Your task to perform on an android device: Open wifi settings Image 0: 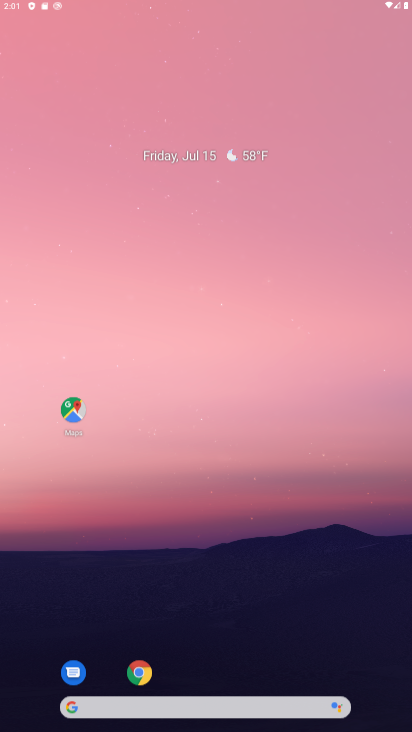
Step 0: press home button
Your task to perform on an android device: Open wifi settings Image 1: 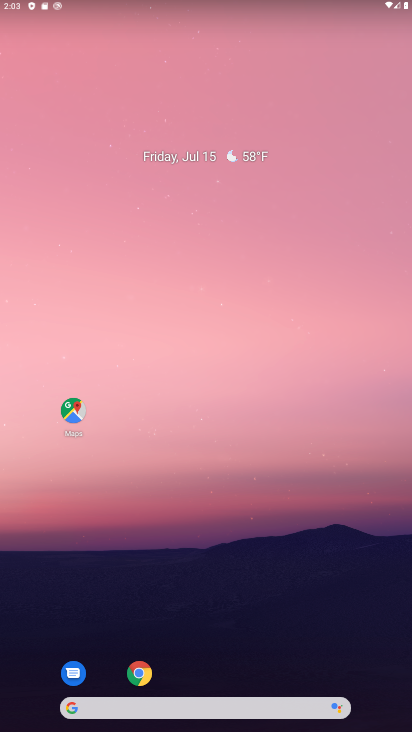
Step 1: drag from (380, 706) to (323, 84)
Your task to perform on an android device: Open wifi settings Image 2: 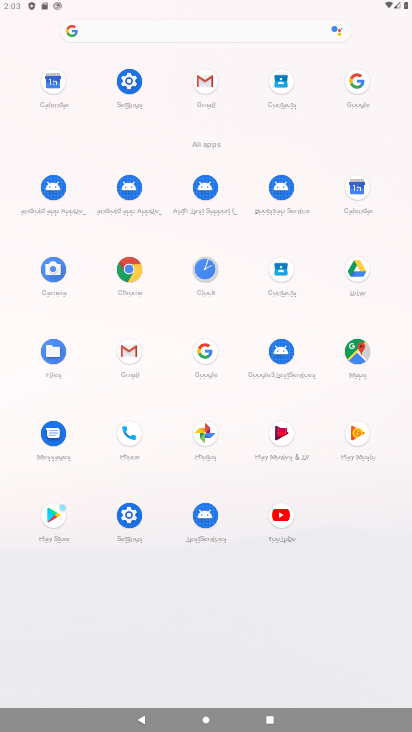
Step 2: click (128, 85)
Your task to perform on an android device: Open wifi settings Image 3: 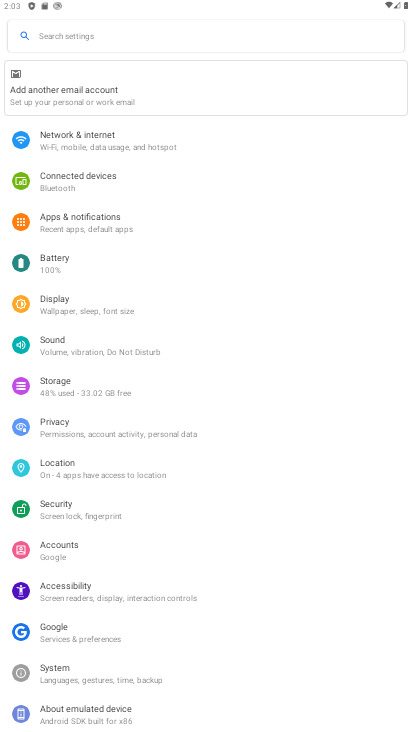
Step 3: click (140, 153)
Your task to perform on an android device: Open wifi settings Image 4: 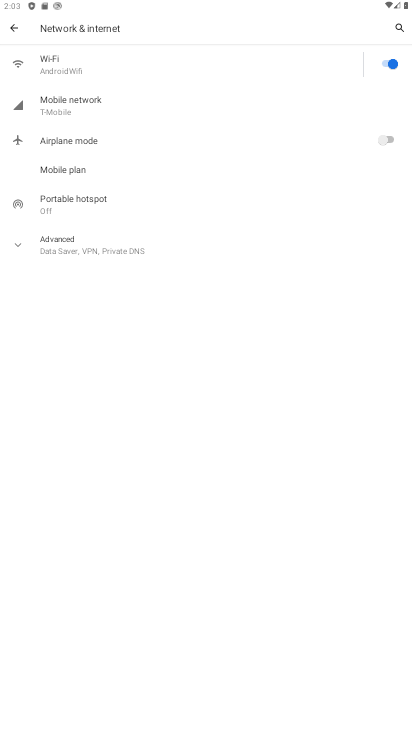
Step 4: click (241, 69)
Your task to perform on an android device: Open wifi settings Image 5: 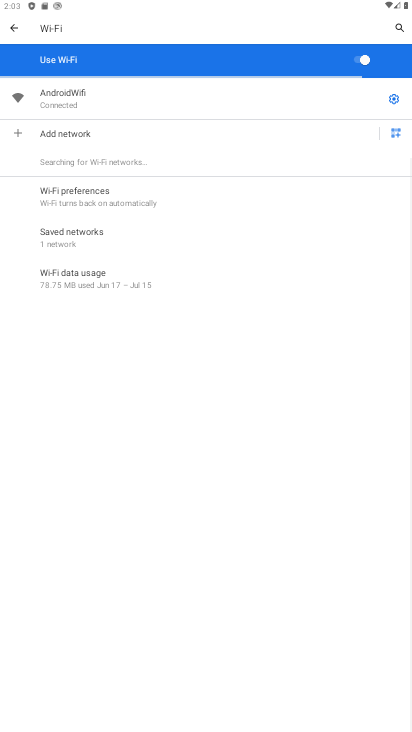
Step 5: click (390, 98)
Your task to perform on an android device: Open wifi settings Image 6: 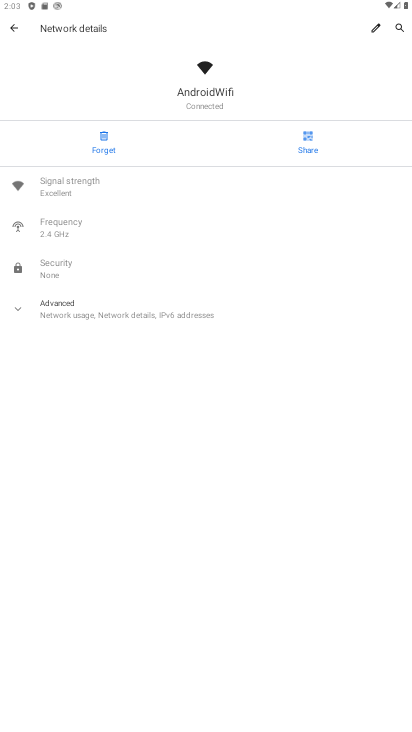
Step 6: click (31, 304)
Your task to perform on an android device: Open wifi settings Image 7: 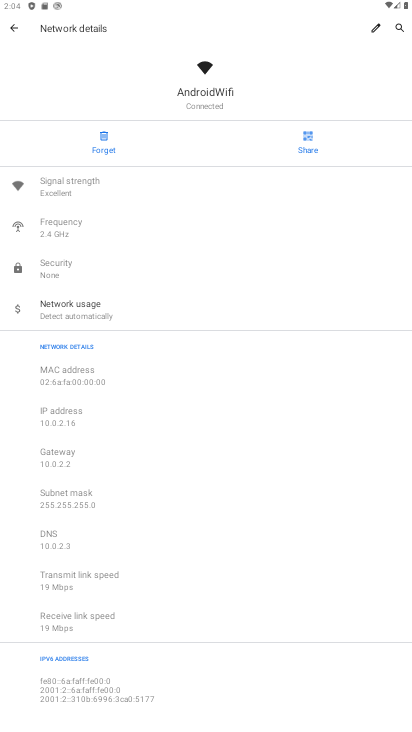
Step 7: task complete